Your task to perform on an android device: Go to CNN.com Image 0: 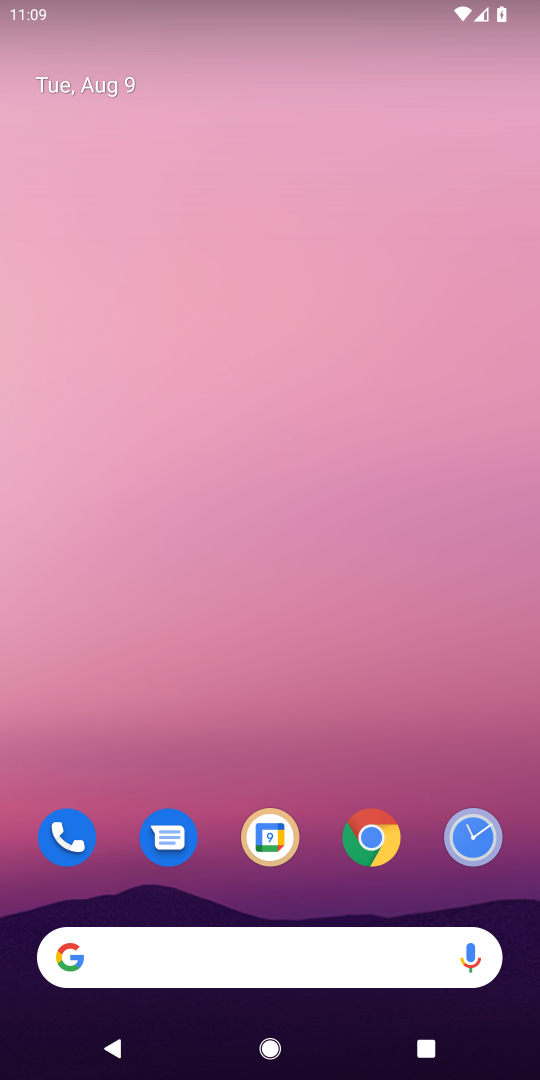
Step 0: click (378, 839)
Your task to perform on an android device: Go to CNN.com Image 1: 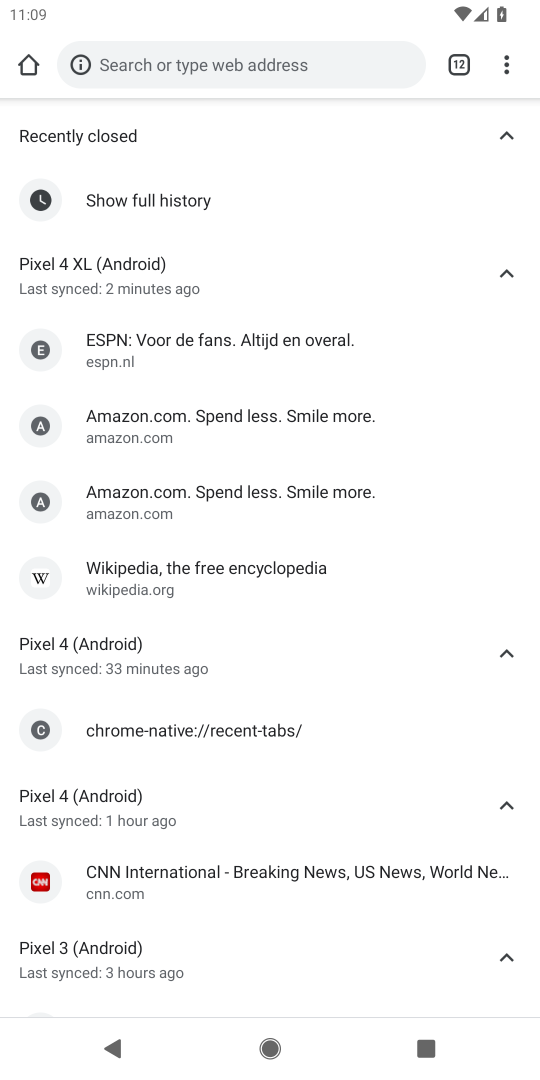
Step 1: click (507, 72)
Your task to perform on an android device: Go to CNN.com Image 2: 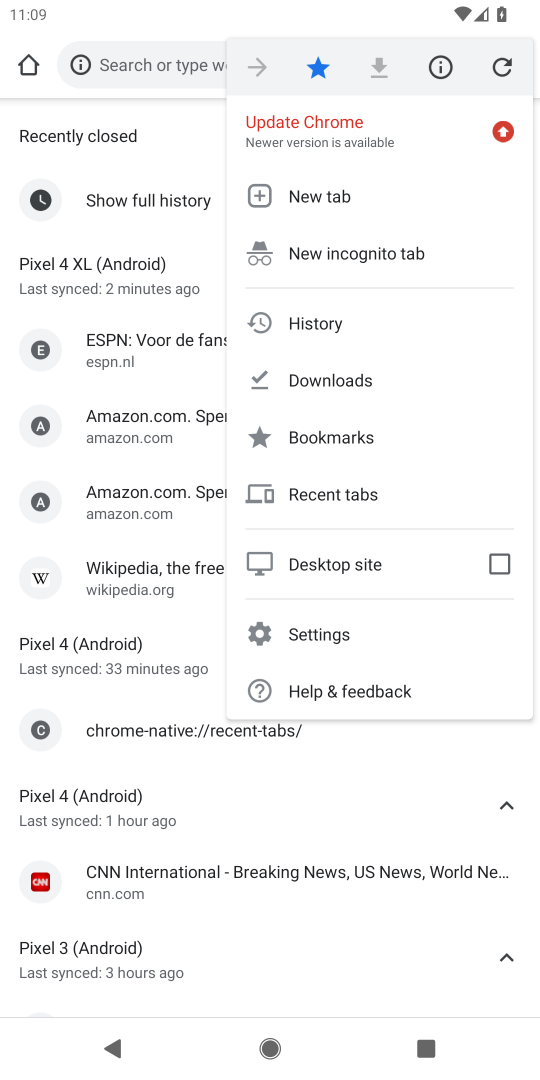
Step 2: click (327, 194)
Your task to perform on an android device: Go to CNN.com Image 3: 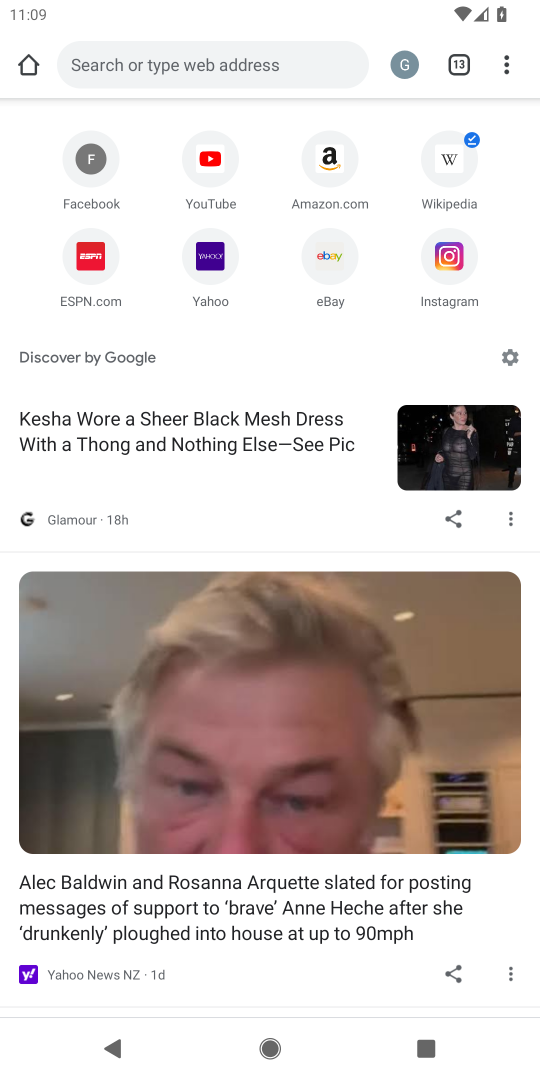
Step 3: click (253, 66)
Your task to perform on an android device: Go to CNN.com Image 4: 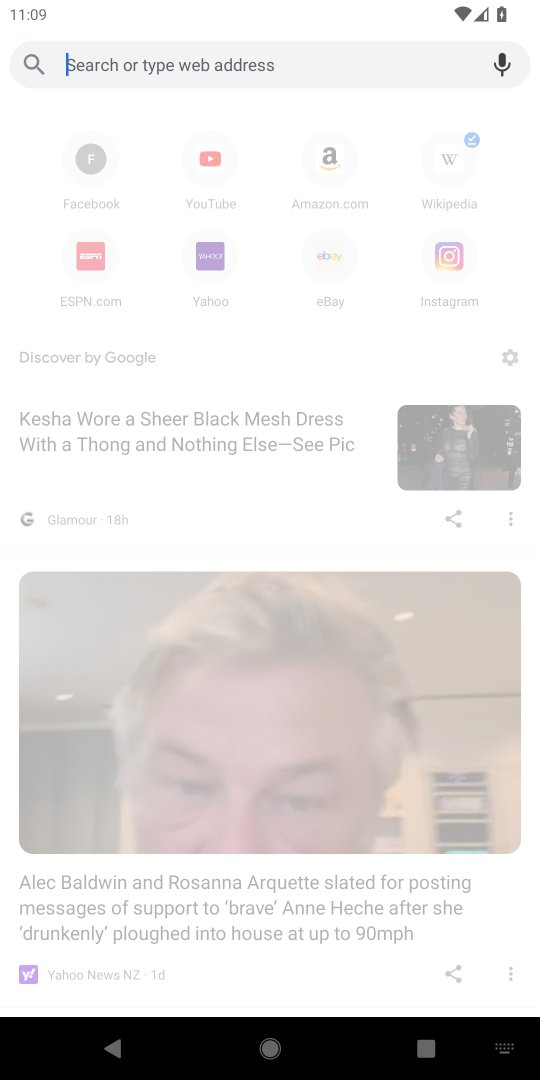
Step 4: type "CNN.com"
Your task to perform on an android device: Go to CNN.com Image 5: 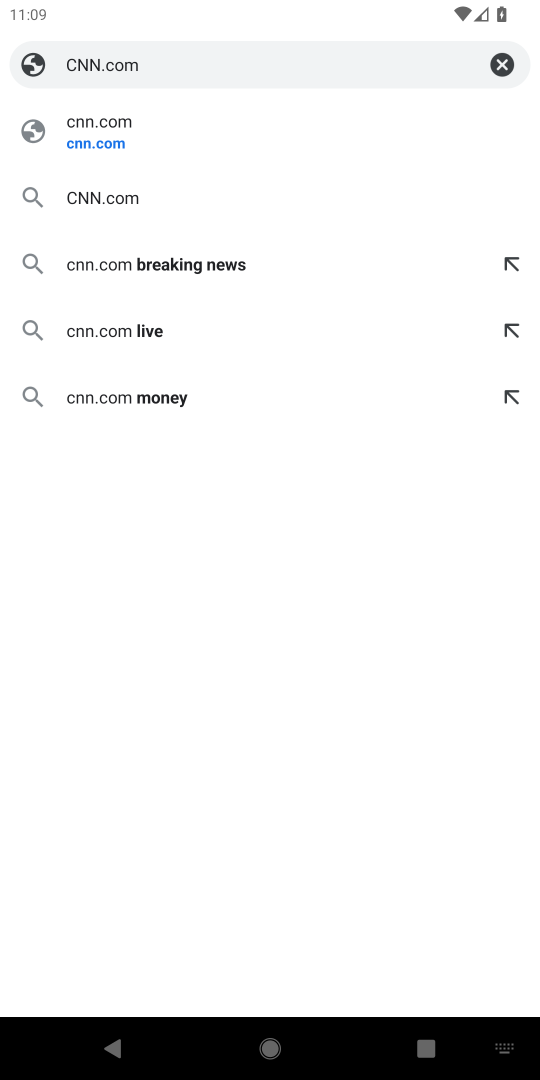
Step 5: click (93, 119)
Your task to perform on an android device: Go to CNN.com Image 6: 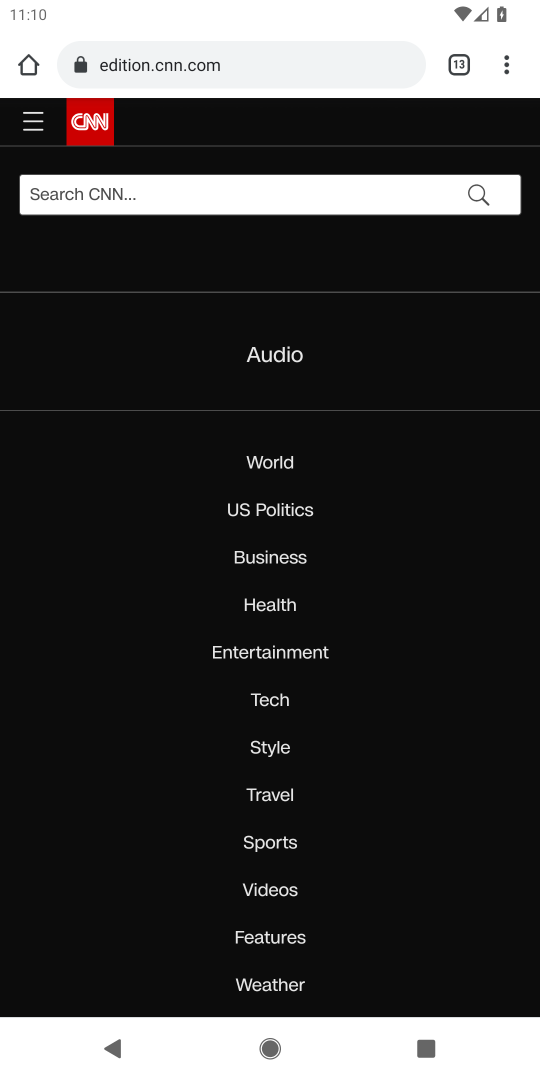
Step 6: task complete